Your task to perform on an android device: Open the calendar app, open the side menu, and click the "Day" option Image 0: 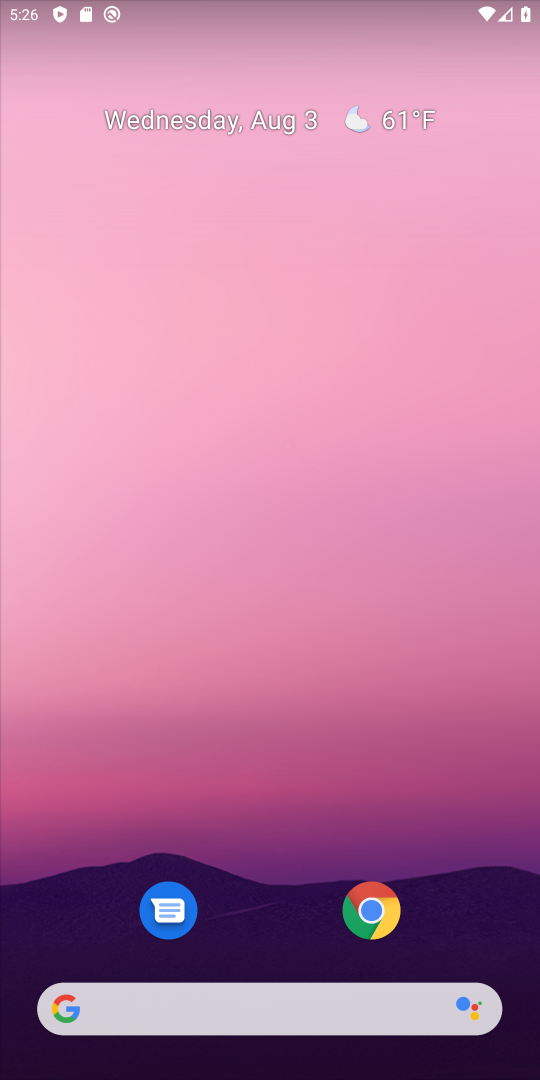
Step 0: press home button
Your task to perform on an android device: Open the calendar app, open the side menu, and click the "Day" option Image 1: 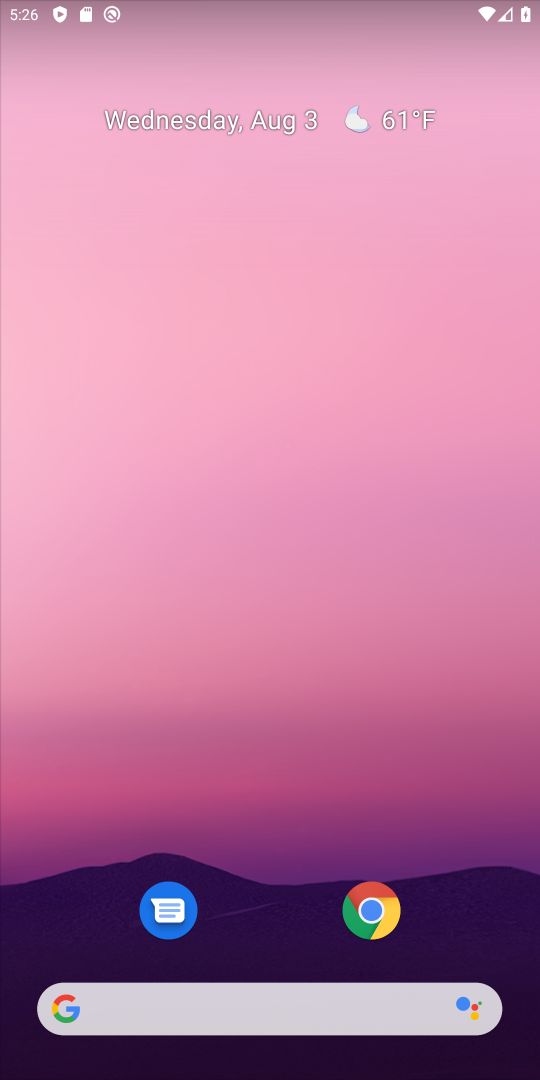
Step 1: drag from (266, 901) to (371, 28)
Your task to perform on an android device: Open the calendar app, open the side menu, and click the "Day" option Image 2: 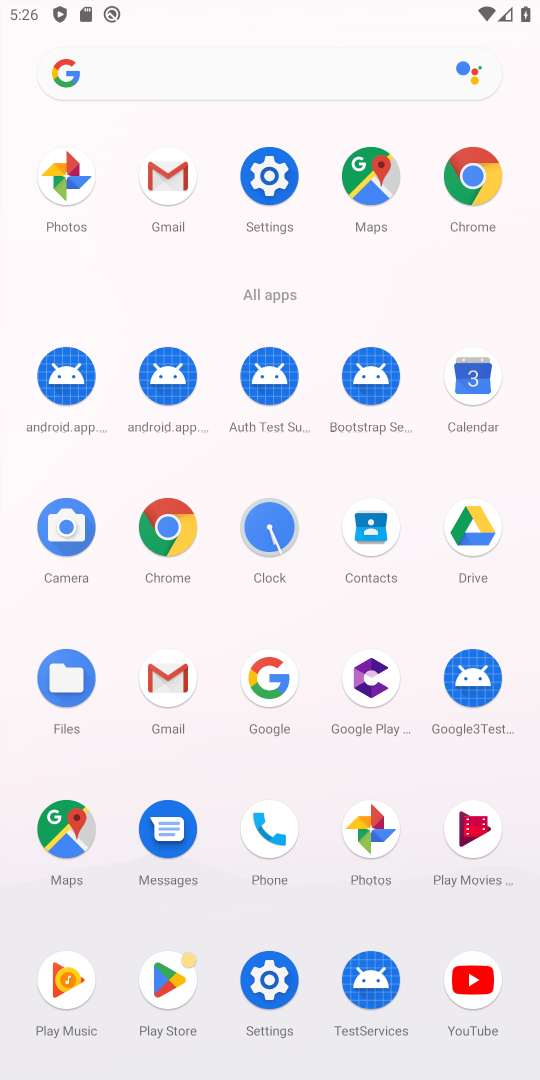
Step 2: click (479, 371)
Your task to perform on an android device: Open the calendar app, open the side menu, and click the "Day" option Image 3: 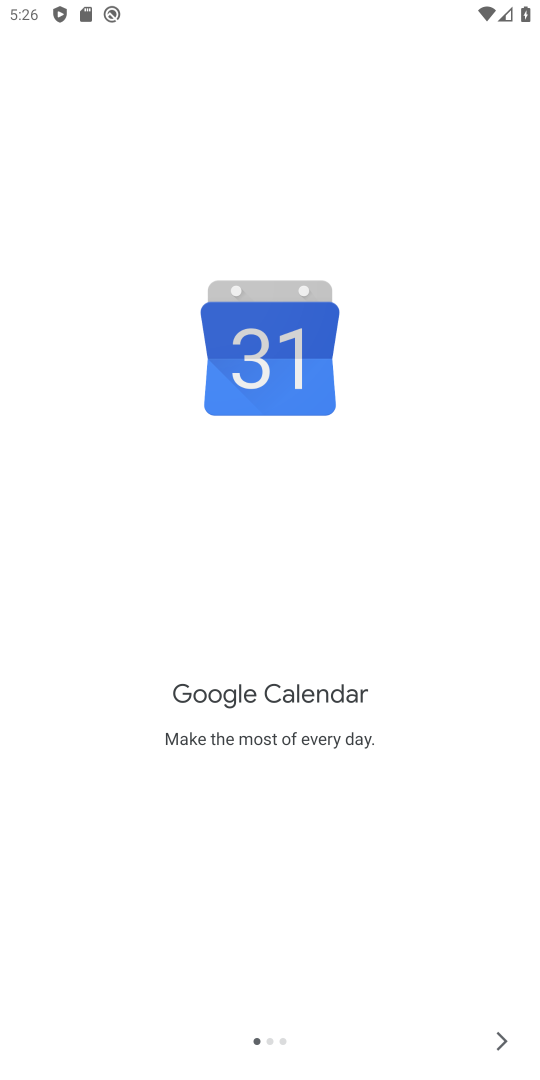
Step 3: click (496, 1037)
Your task to perform on an android device: Open the calendar app, open the side menu, and click the "Day" option Image 4: 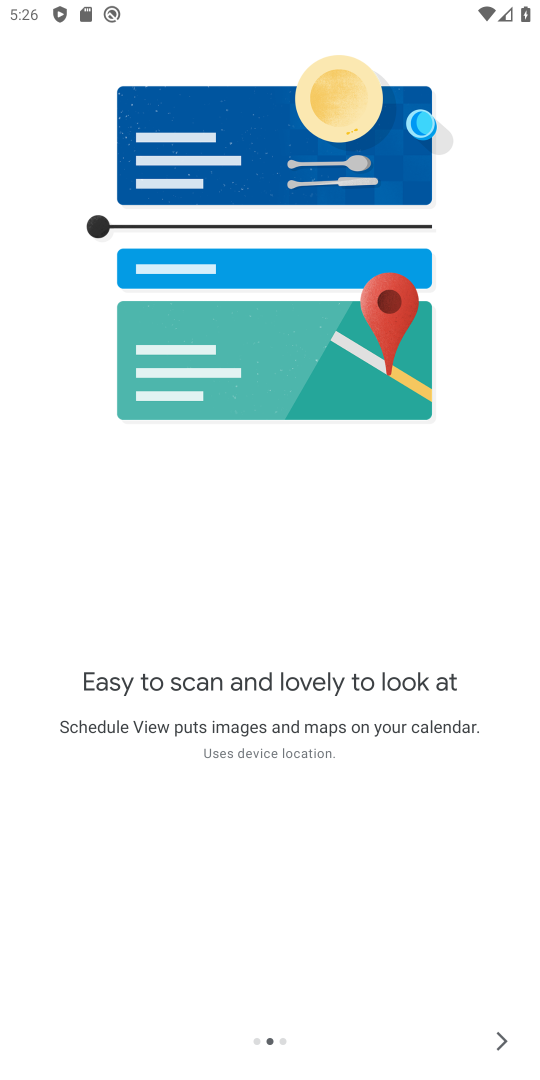
Step 4: click (496, 1037)
Your task to perform on an android device: Open the calendar app, open the side menu, and click the "Day" option Image 5: 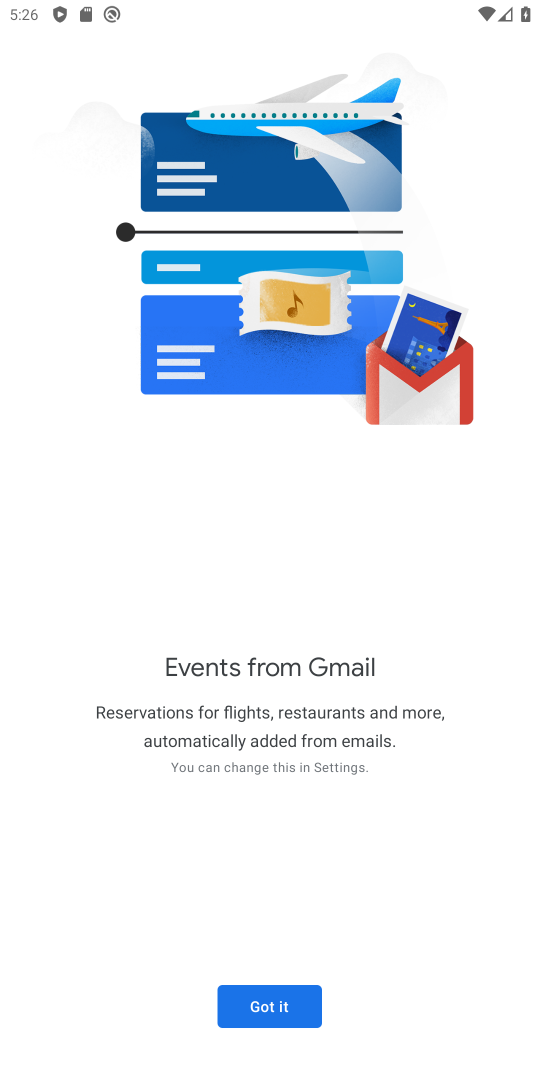
Step 5: click (271, 1001)
Your task to perform on an android device: Open the calendar app, open the side menu, and click the "Day" option Image 6: 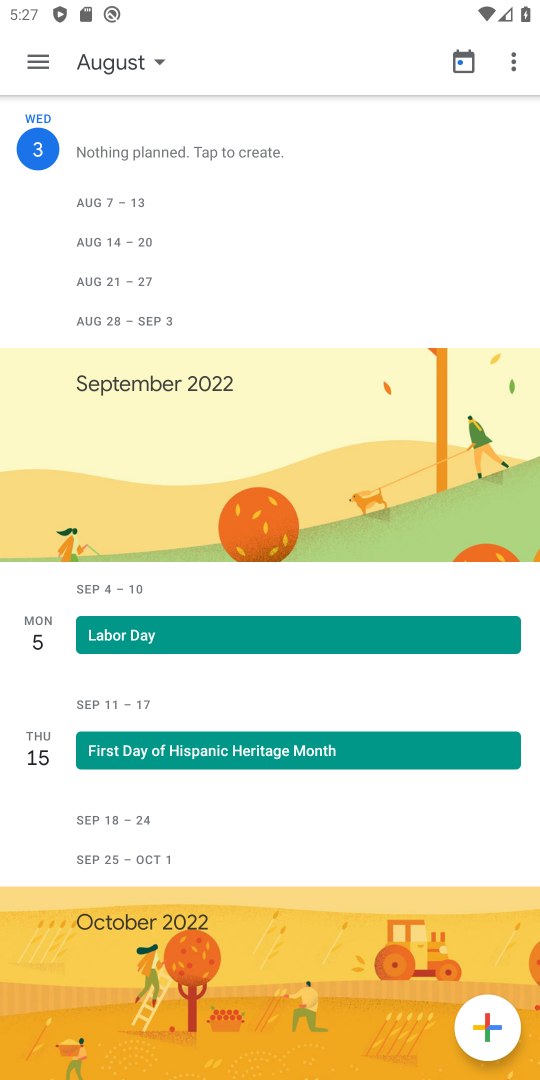
Step 6: click (47, 74)
Your task to perform on an android device: Open the calendar app, open the side menu, and click the "Day" option Image 7: 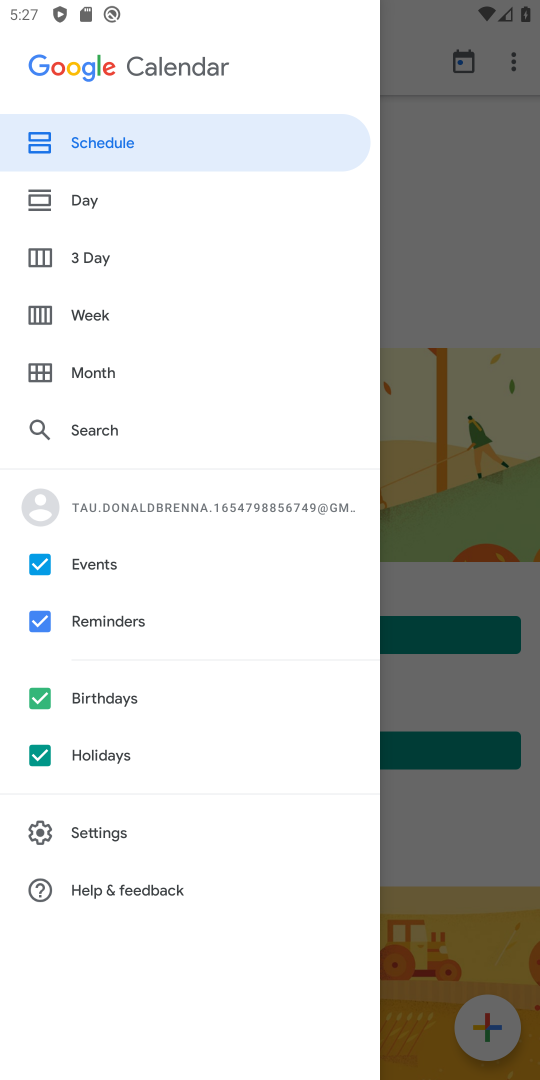
Step 7: click (99, 187)
Your task to perform on an android device: Open the calendar app, open the side menu, and click the "Day" option Image 8: 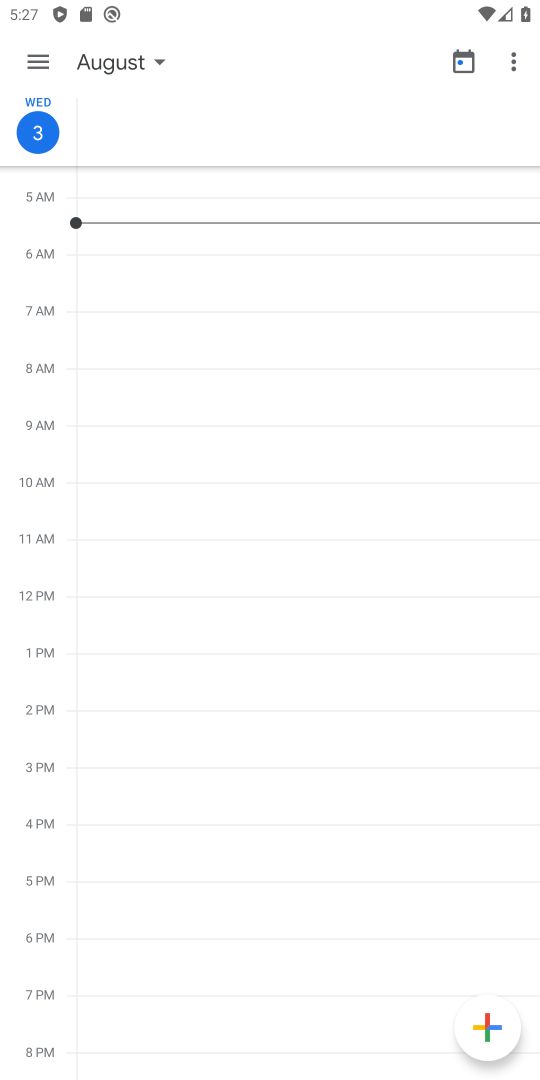
Step 8: task complete